Your task to perform on an android device: What's on my calendar tomorrow? Image 0: 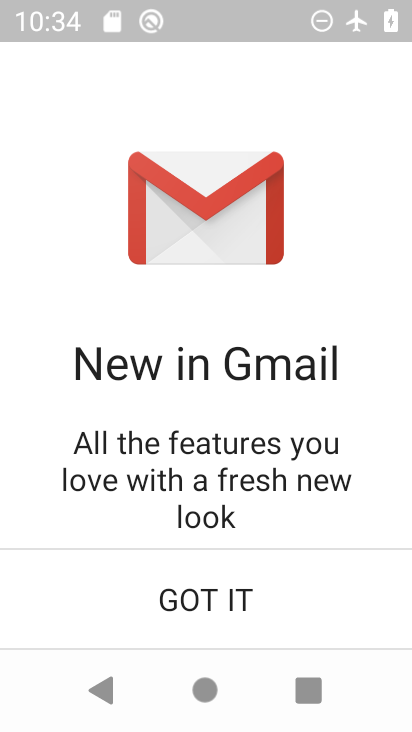
Step 0: press home button
Your task to perform on an android device: What's on my calendar tomorrow? Image 1: 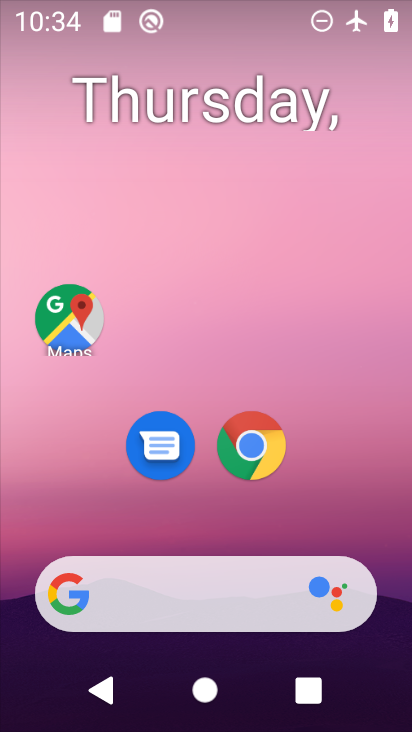
Step 1: drag from (203, 549) to (139, 51)
Your task to perform on an android device: What's on my calendar tomorrow? Image 2: 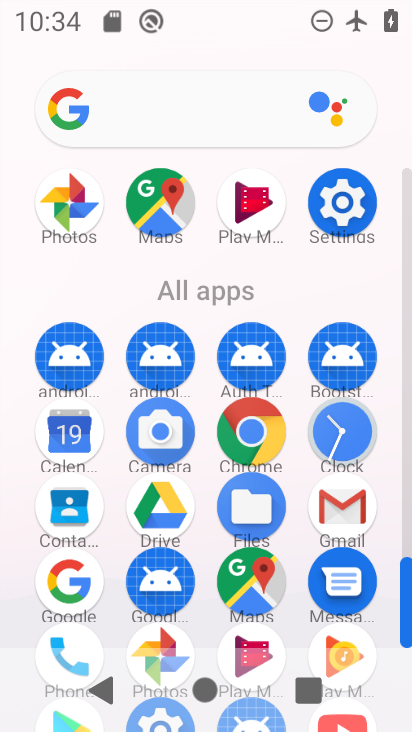
Step 2: click (56, 439)
Your task to perform on an android device: What's on my calendar tomorrow? Image 3: 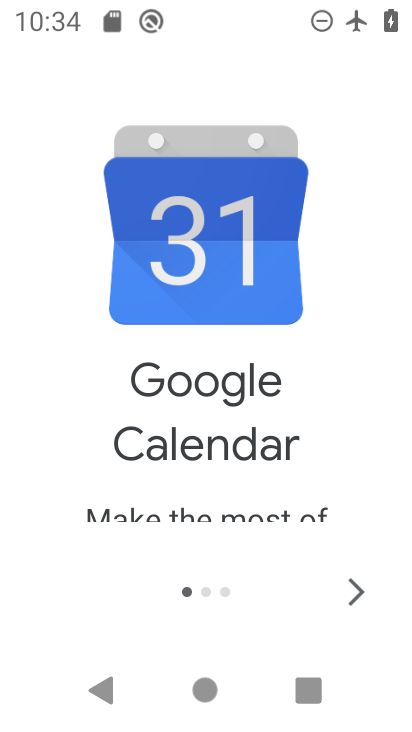
Step 3: click (344, 591)
Your task to perform on an android device: What's on my calendar tomorrow? Image 4: 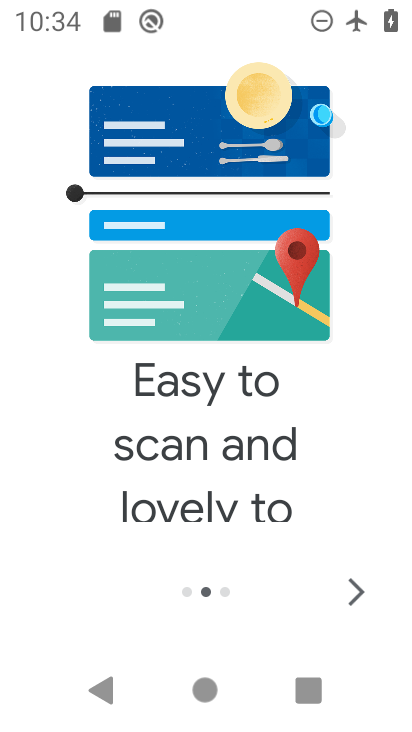
Step 4: click (344, 591)
Your task to perform on an android device: What's on my calendar tomorrow? Image 5: 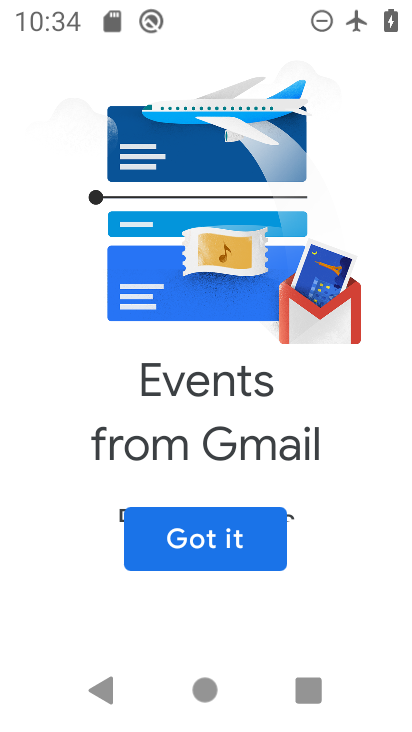
Step 5: click (148, 508)
Your task to perform on an android device: What's on my calendar tomorrow? Image 6: 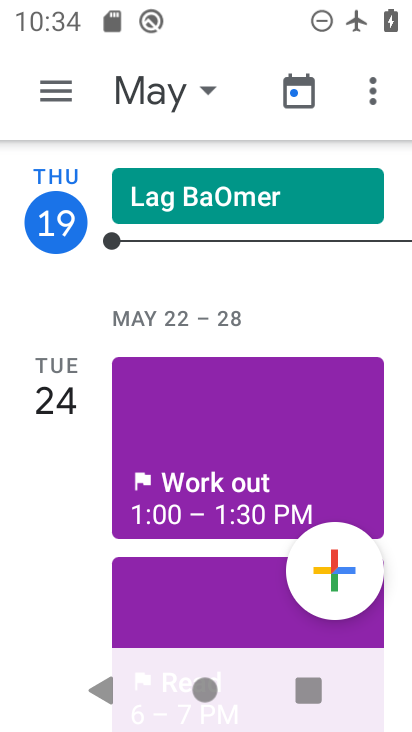
Step 6: click (175, 89)
Your task to perform on an android device: What's on my calendar tomorrow? Image 7: 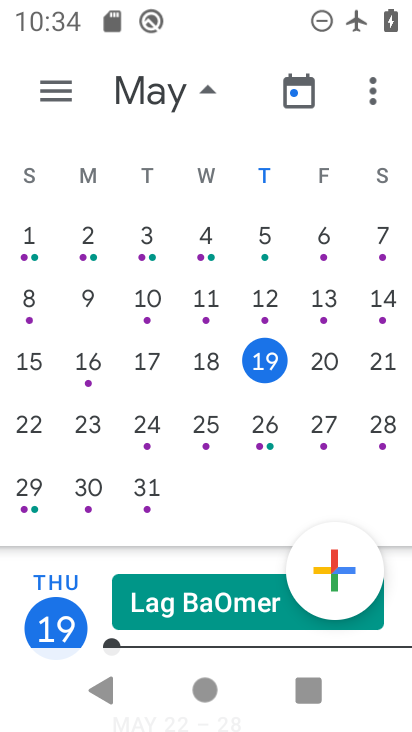
Step 7: click (315, 359)
Your task to perform on an android device: What's on my calendar tomorrow? Image 8: 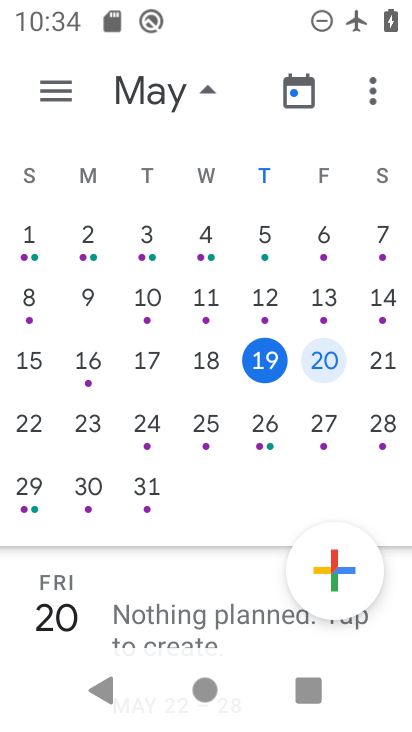
Step 8: drag from (240, 547) to (211, 18)
Your task to perform on an android device: What's on my calendar tomorrow? Image 9: 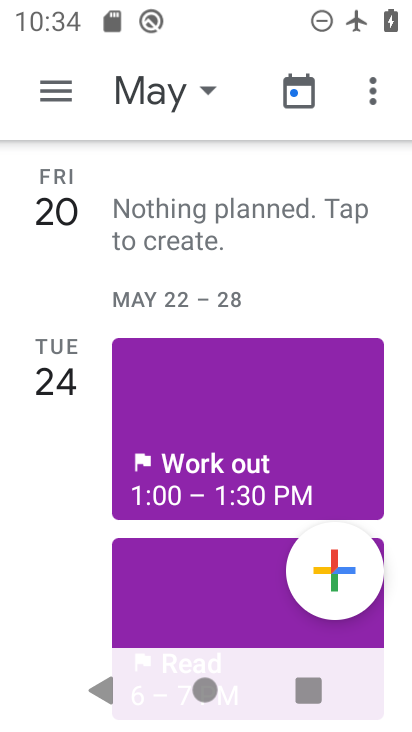
Step 9: click (69, 206)
Your task to perform on an android device: What's on my calendar tomorrow? Image 10: 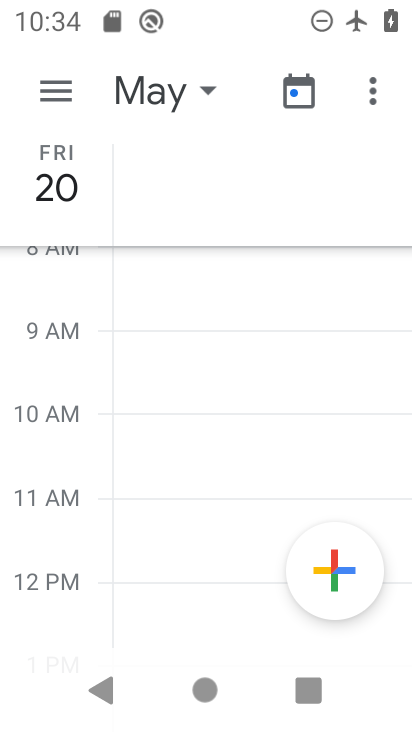
Step 10: task complete